Your task to perform on an android device: Go to settings Image 0: 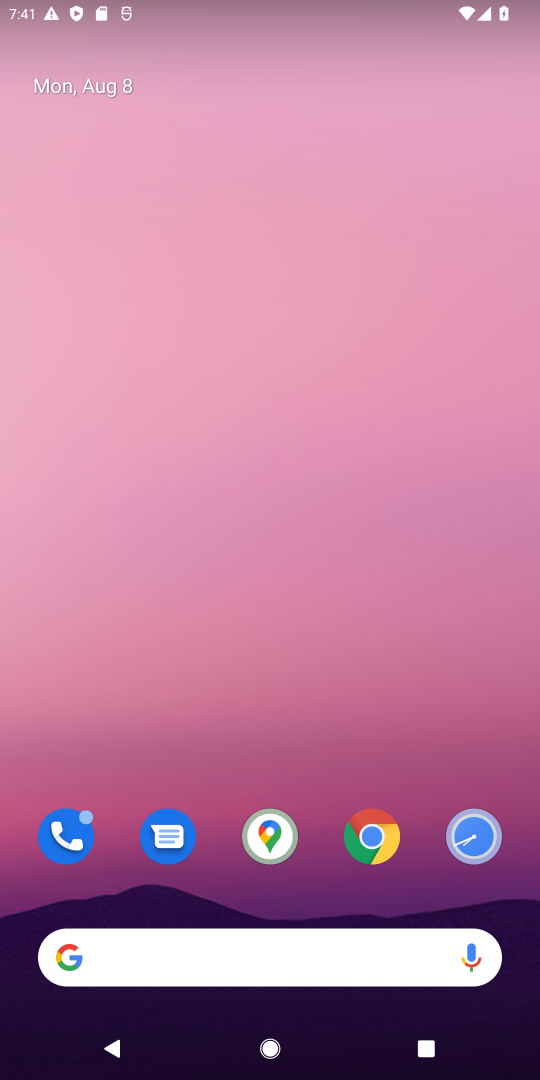
Step 0: drag from (424, 750) to (348, 129)
Your task to perform on an android device: Go to settings Image 1: 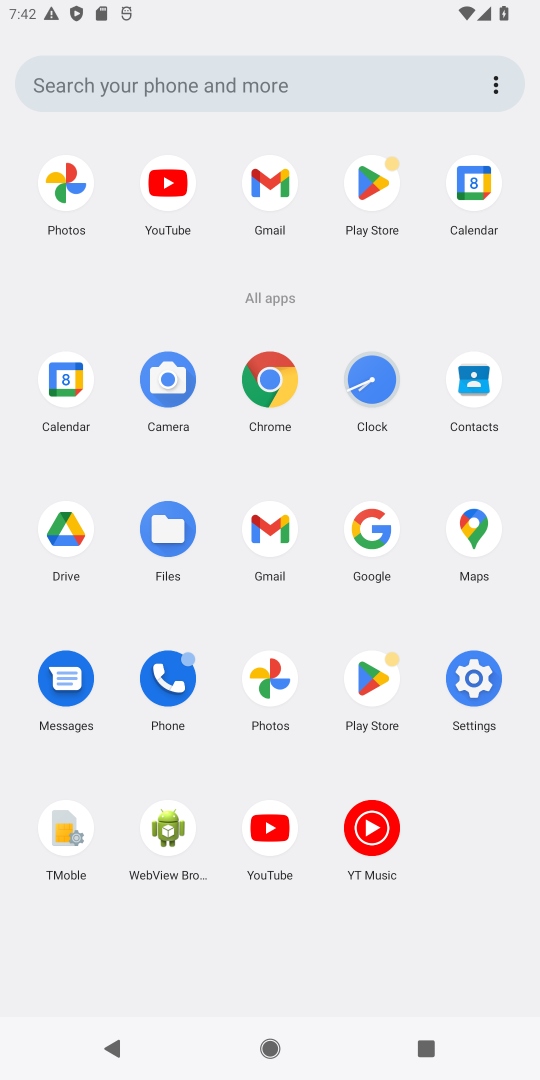
Step 1: click (471, 679)
Your task to perform on an android device: Go to settings Image 2: 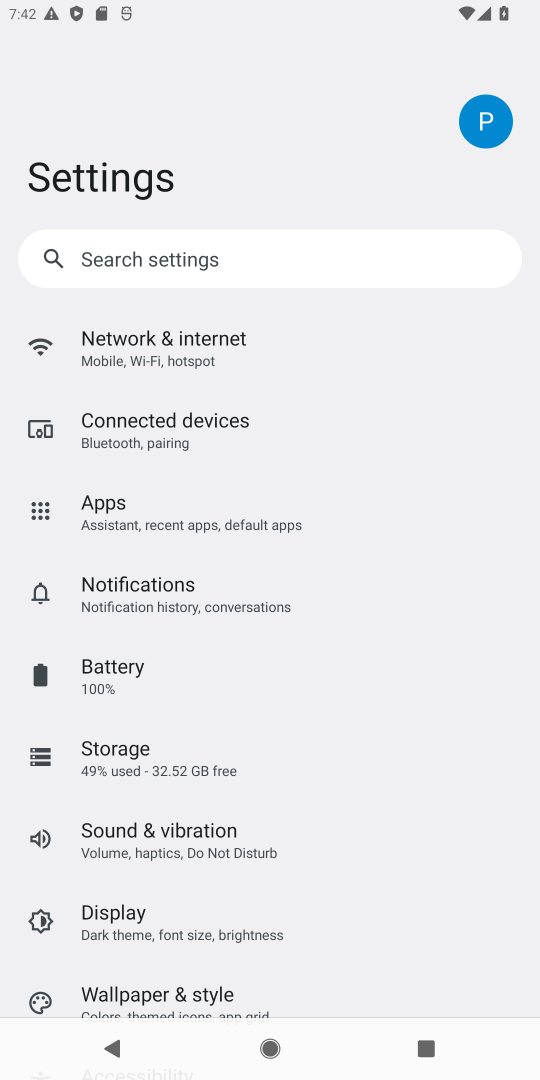
Step 2: task complete